Your task to perform on an android device: Clear the shopping cart on walmart. Search for razer naga on walmart, select the first entry, add it to the cart, then select checkout. Image 0: 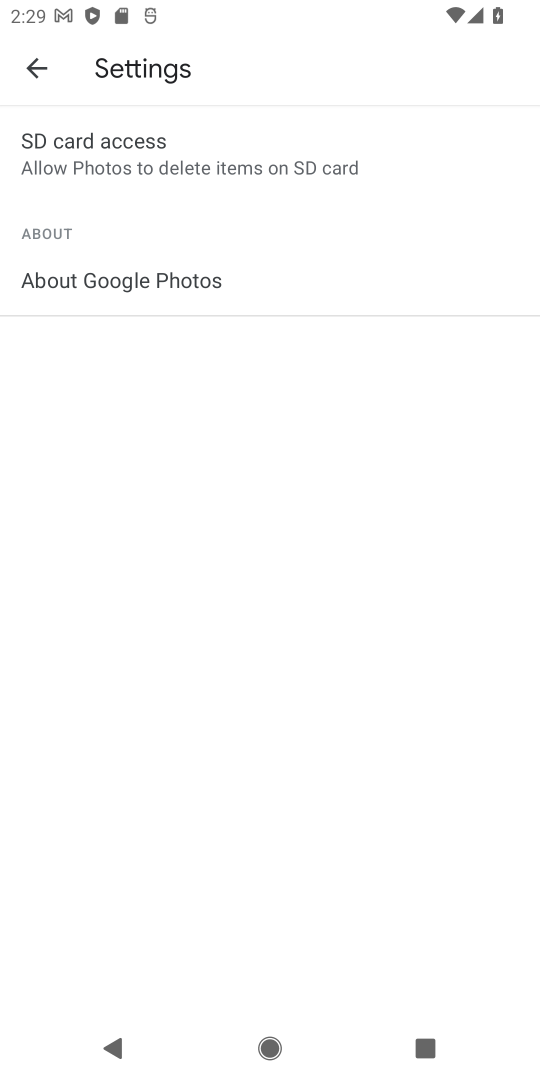
Step 0: press home button
Your task to perform on an android device: Clear the shopping cart on walmart. Search for razer naga on walmart, select the first entry, add it to the cart, then select checkout. Image 1: 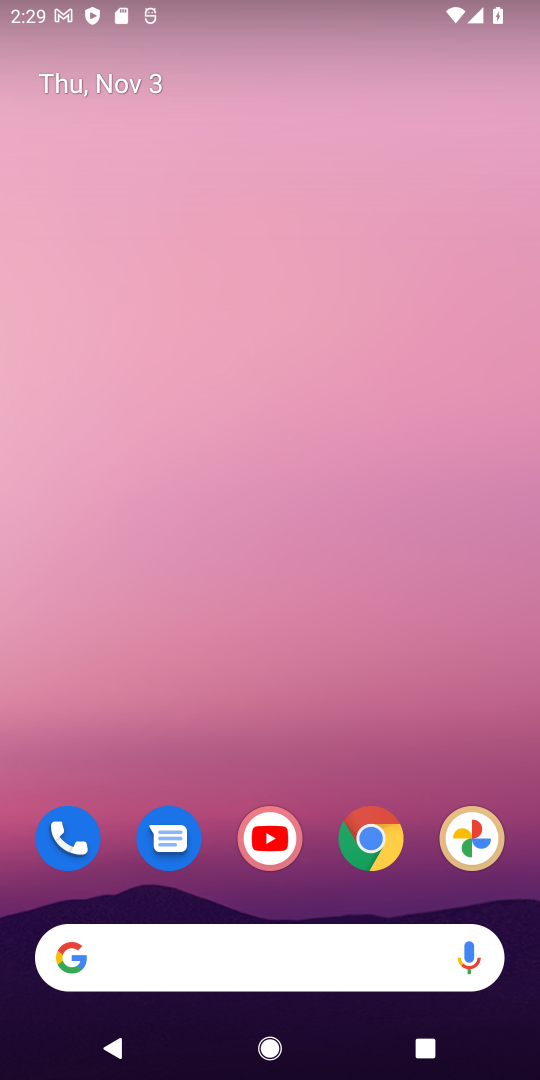
Step 1: drag from (316, 895) to (370, 214)
Your task to perform on an android device: Clear the shopping cart on walmart. Search for razer naga on walmart, select the first entry, add it to the cart, then select checkout. Image 2: 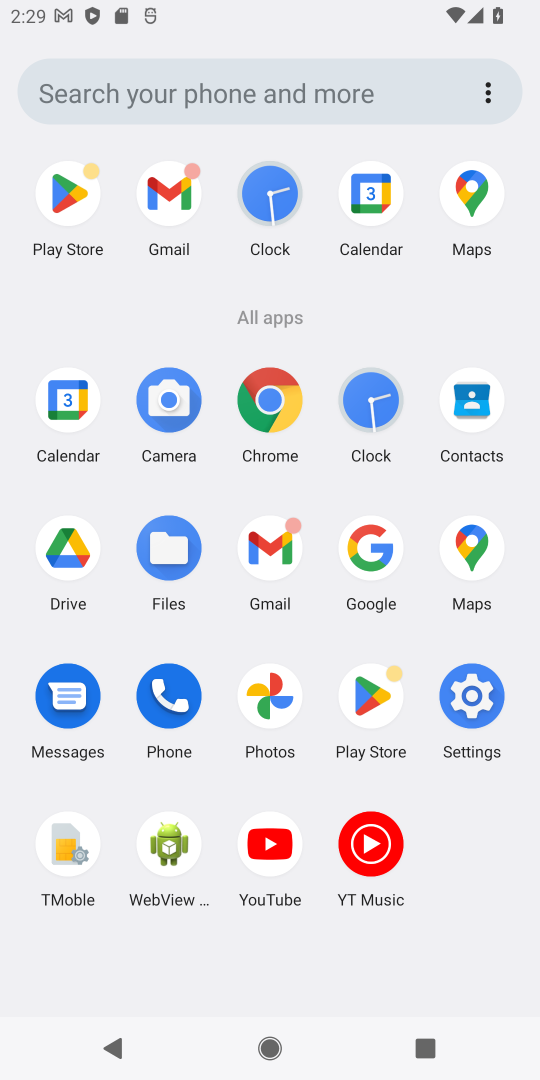
Step 2: click (265, 401)
Your task to perform on an android device: Clear the shopping cart on walmart. Search for razer naga on walmart, select the first entry, add it to the cart, then select checkout. Image 3: 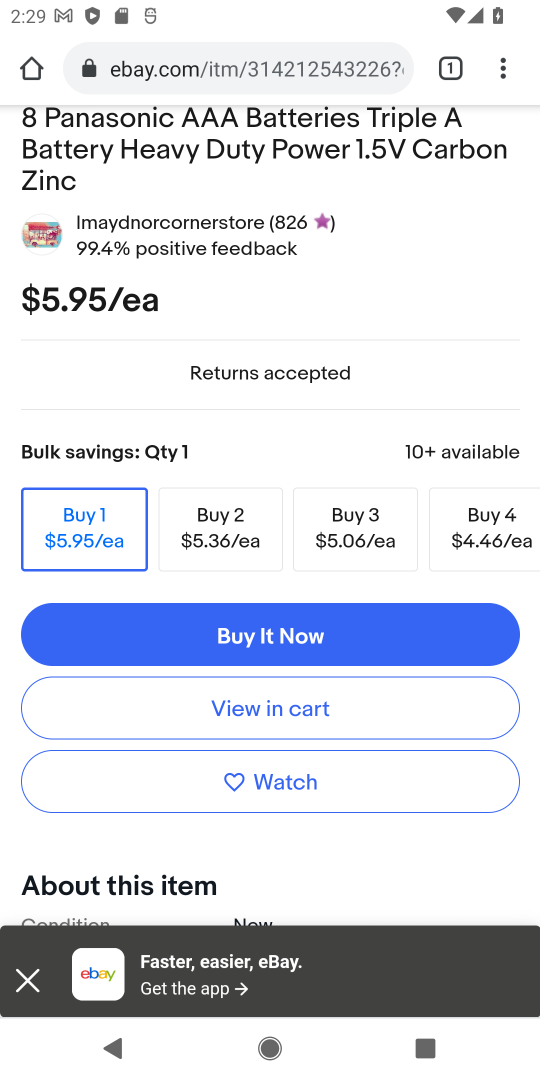
Step 3: click (316, 65)
Your task to perform on an android device: Clear the shopping cart on walmart. Search for razer naga on walmart, select the first entry, add it to the cart, then select checkout. Image 4: 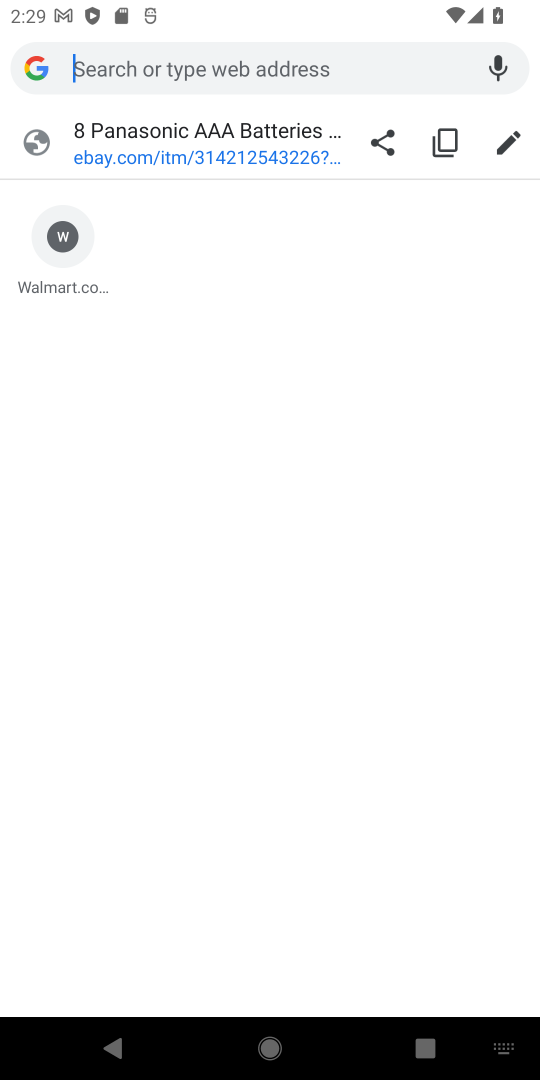
Step 4: type "walmart.com"
Your task to perform on an android device: Clear the shopping cart on walmart. Search for razer naga on walmart, select the first entry, add it to the cart, then select checkout. Image 5: 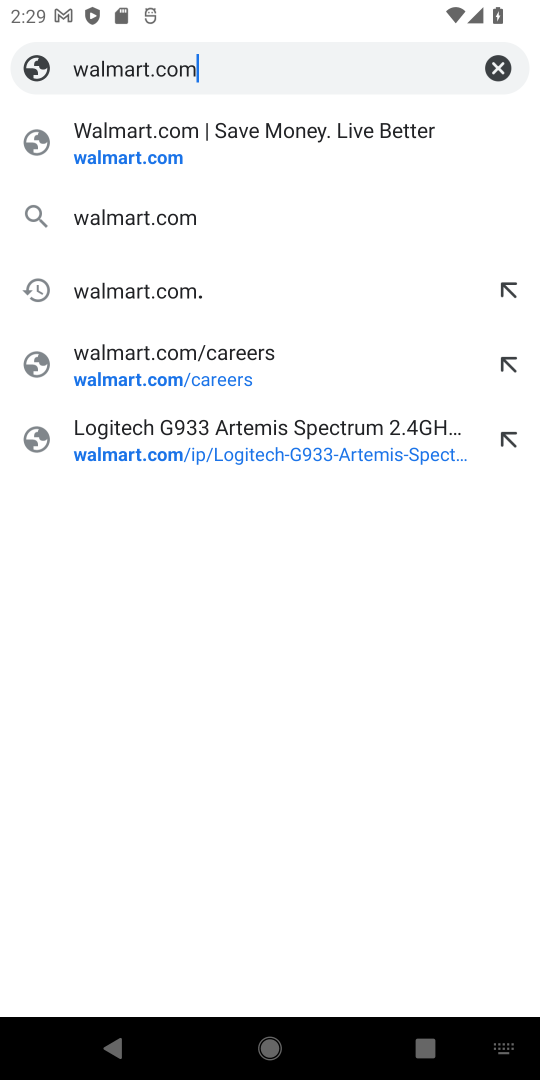
Step 5: press enter
Your task to perform on an android device: Clear the shopping cart on walmart. Search for razer naga on walmart, select the first entry, add it to the cart, then select checkout. Image 6: 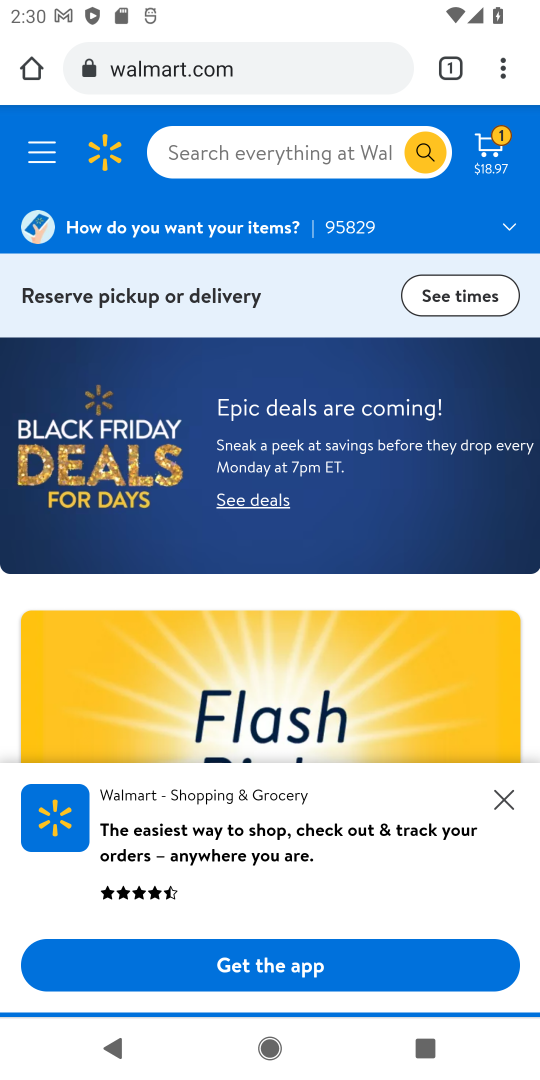
Step 6: click (271, 171)
Your task to perform on an android device: Clear the shopping cart on walmart. Search for razer naga on walmart, select the first entry, add it to the cart, then select checkout. Image 7: 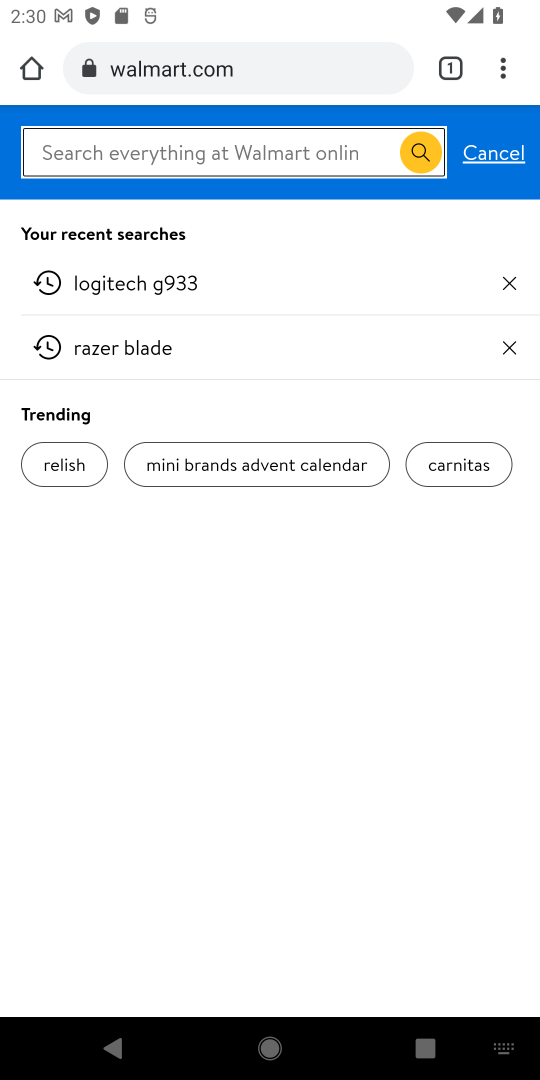
Step 7: click (503, 154)
Your task to perform on an android device: Clear the shopping cart on walmart. Search for razer naga on walmart, select the first entry, add it to the cart, then select checkout. Image 8: 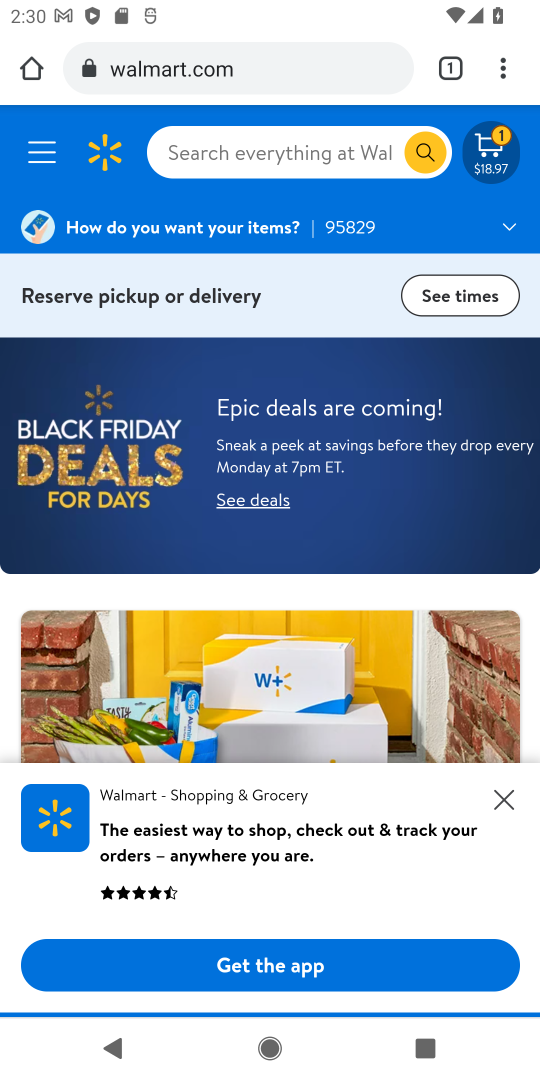
Step 8: click (503, 154)
Your task to perform on an android device: Clear the shopping cart on walmart. Search for razer naga on walmart, select the first entry, add it to the cart, then select checkout. Image 9: 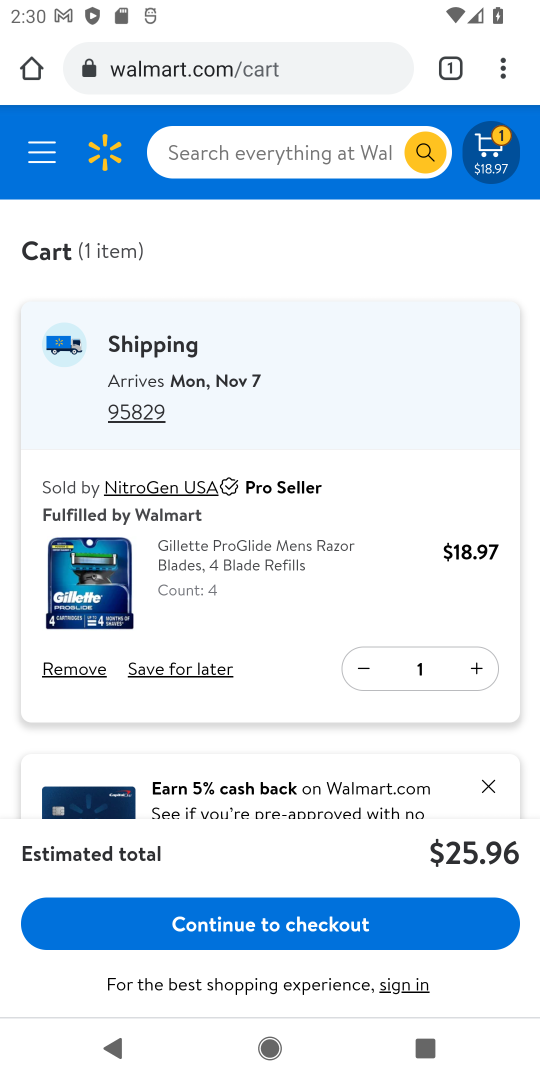
Step 9: click (74, 666)
Your task to perform on an android device: Clear the shopping cart on walmart. Search for razer naga on walmart, select the first entry, add it to the cart, then select checkout. Image 10: 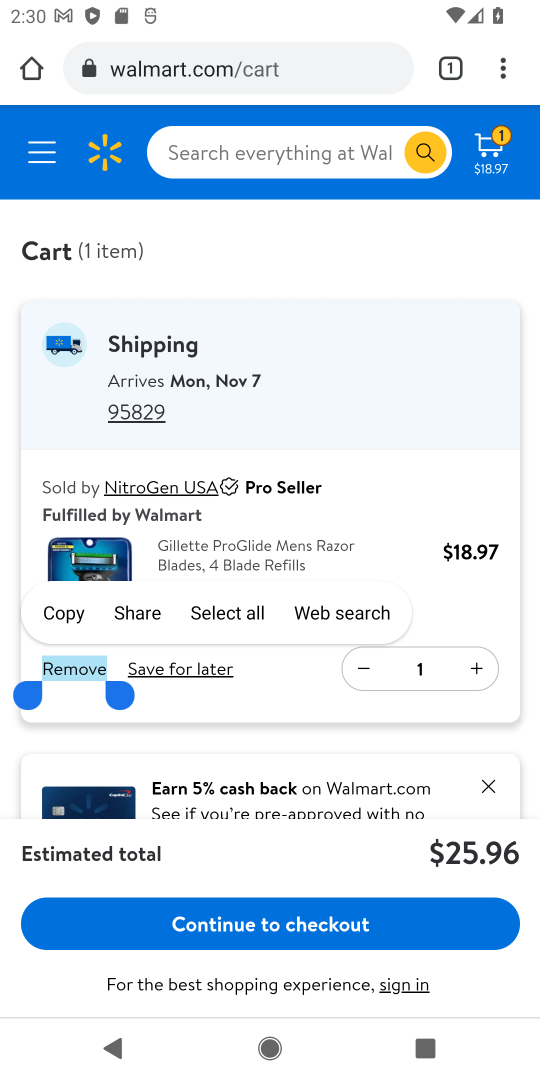
Step 10: click (74, 666)
Your task to perform on an android device: Clear the shopping cart on walmart. Search for razer naga on walmart, select the first entry, add it to the cart, then select checkout. Image 11: 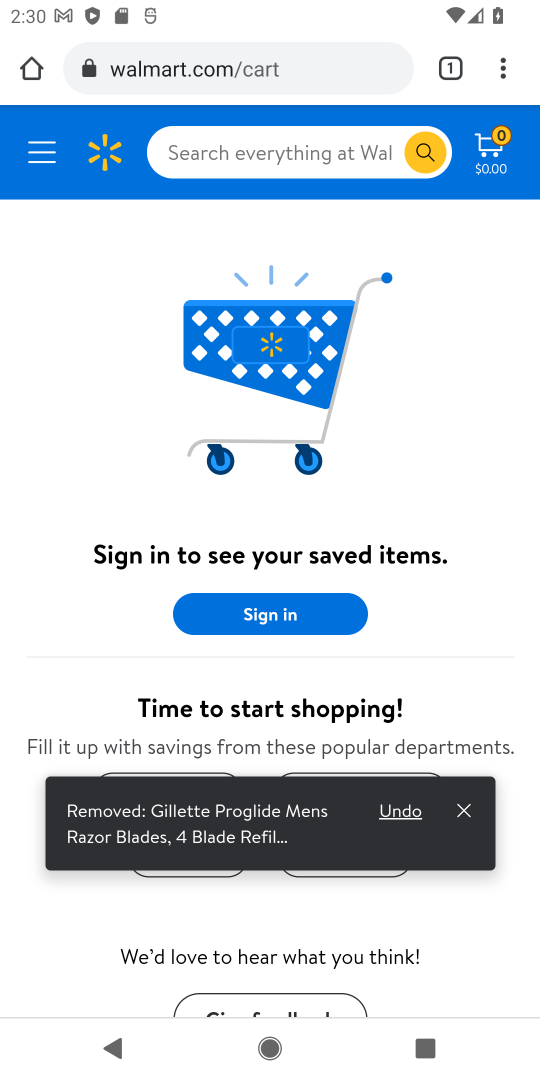
Step 11: click (310, 141)
Your task to perform on an android device: Clear the shopping cart on walmart. Search for razer naga on walmart, select the first entry, add it to the cart, then select checkout. Image 12: 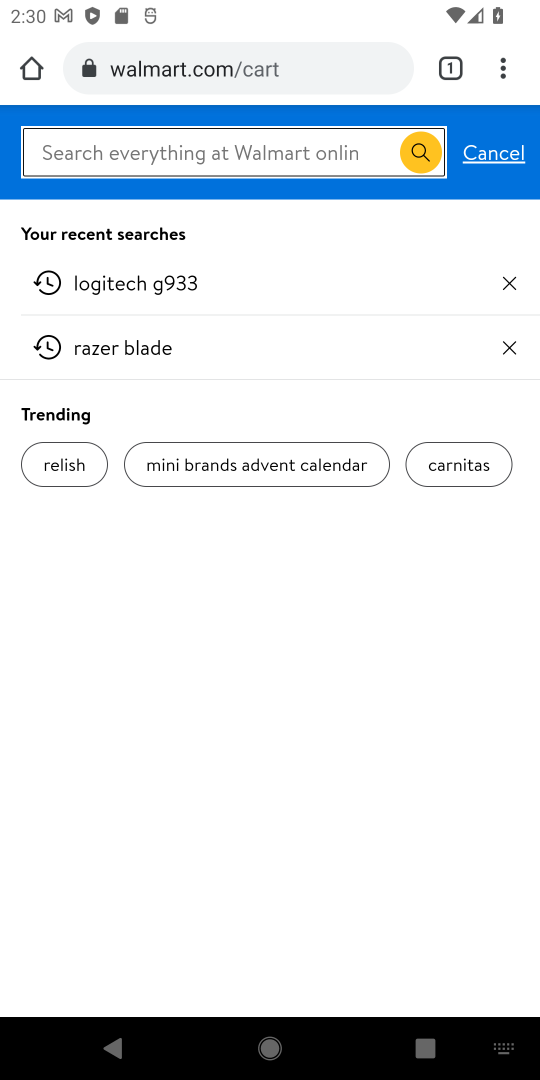
Step 12: type "razer naga"
Your task to perform on an android device: Clear the shopping cart on walmart. Search for razer naga on walmart, select the first entry, add it to the cart, then select checkout. Image 13: 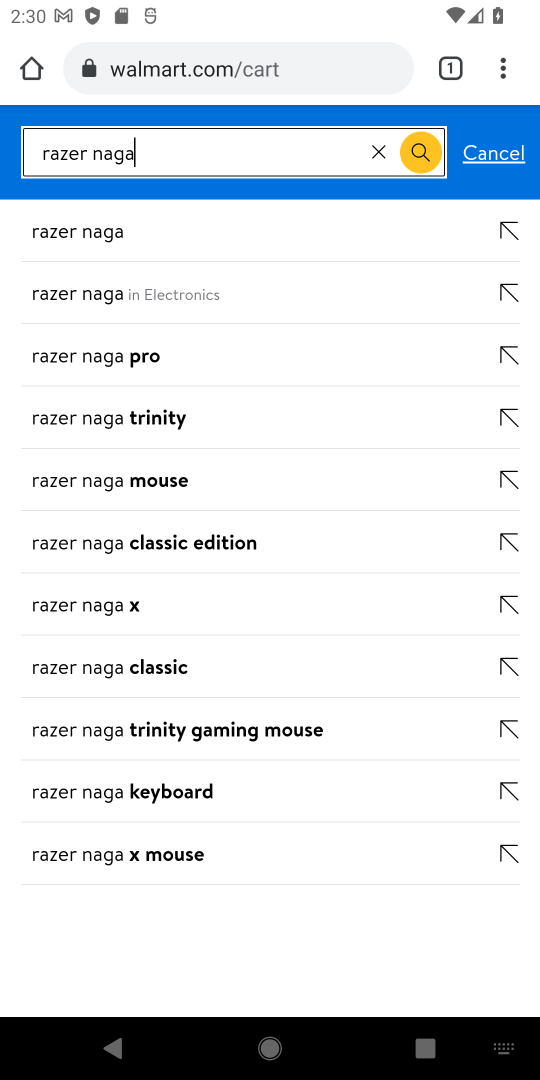
Step 13: press enter
Your task to perform on an android device: Clear the shopping cart on walmart. Search for razer naga on walmart, select the first entry, add it to the cart, then select checkout. Image 14: 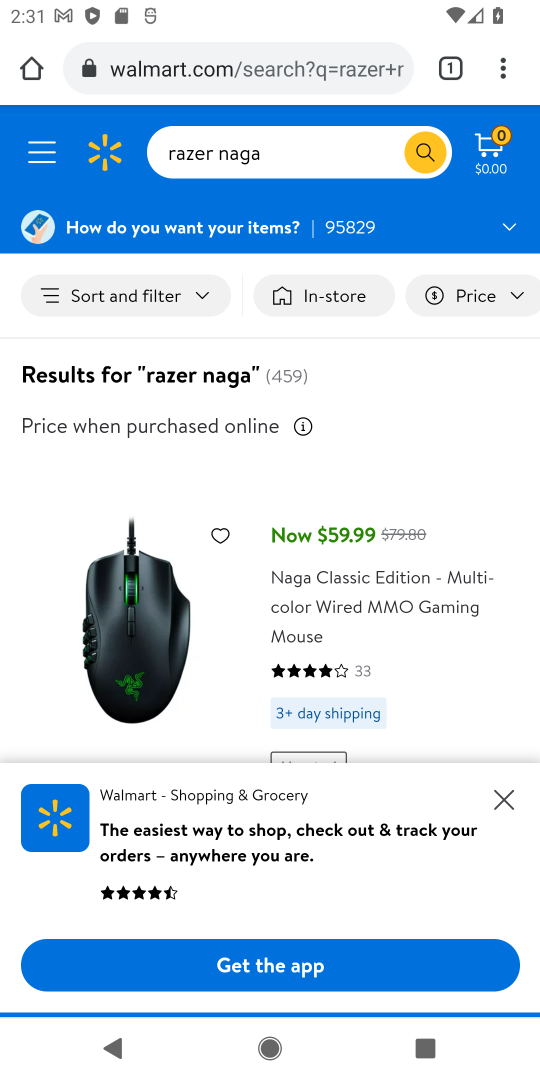
Step 14: drag from (291, 660) to (333, 402)
Your task to perform on an android device: Clear the shopping cart on walmart. Search for razer naga on walmart, select the first entry, add it to the cart, then select checkout. Image 15: 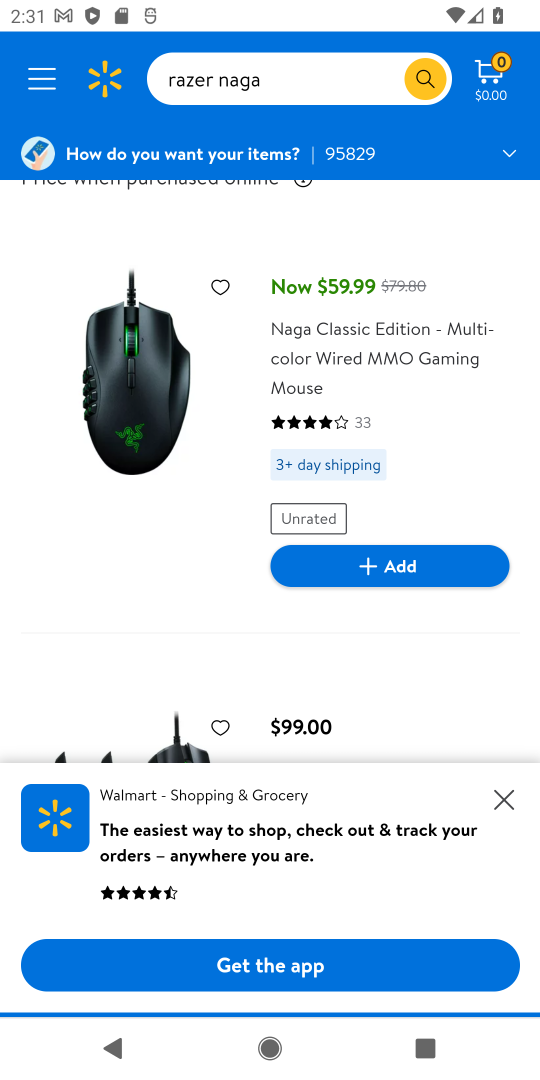
Step 15: drag from (405, 689) to (395, 397)
Your task to perform on an android device: Clear the shopping cart on walmart. Search for razer naga on walmart, select the first entry, add it to the cart, then select checkout. Image 16: 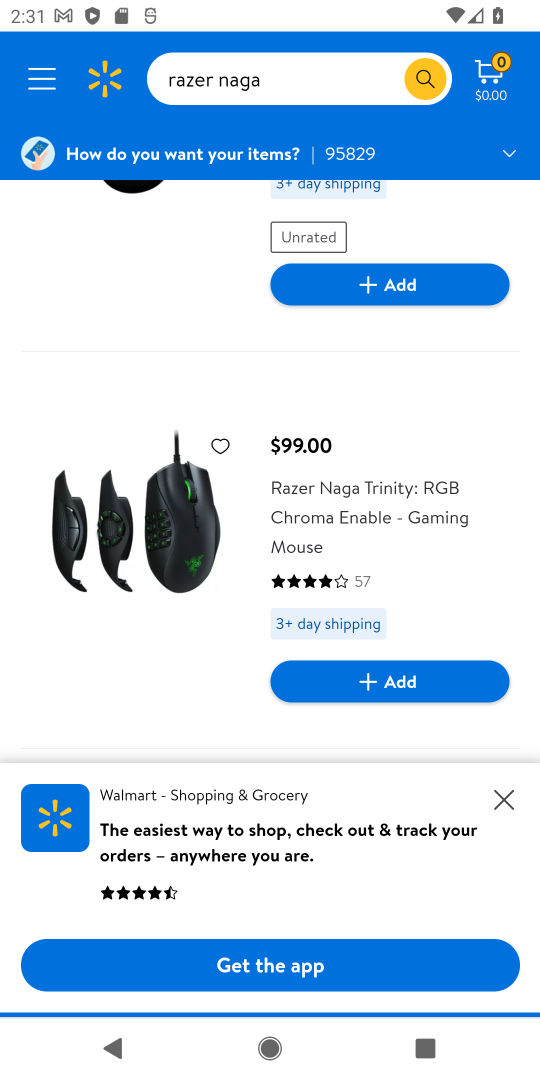
Step 16: drag from (398, 378) to (279, 492)
Your task to perform on an android device: Clear the shopping cart on walmart. Search for razer naga on walmart, select the first entry, add it to the cart, then select checkout. Image 17: 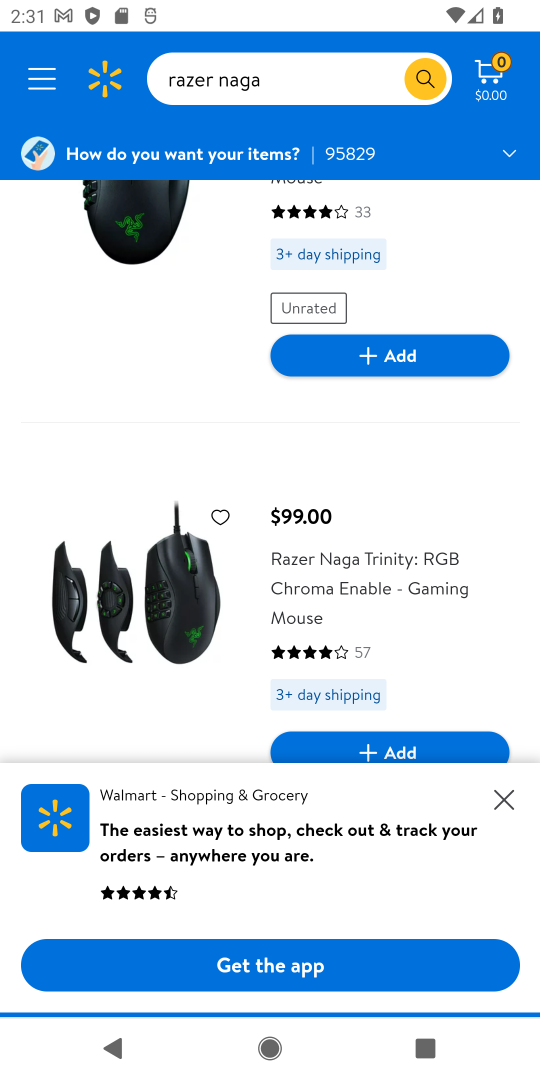
Step 17: drag from (150, 403) to (283, 373)
Your task to perform on an android device: Clear the shopping cart on walmart. Search for razer naga on walmart, select the first entry, add it to the cart, then select checkout. Image 18: 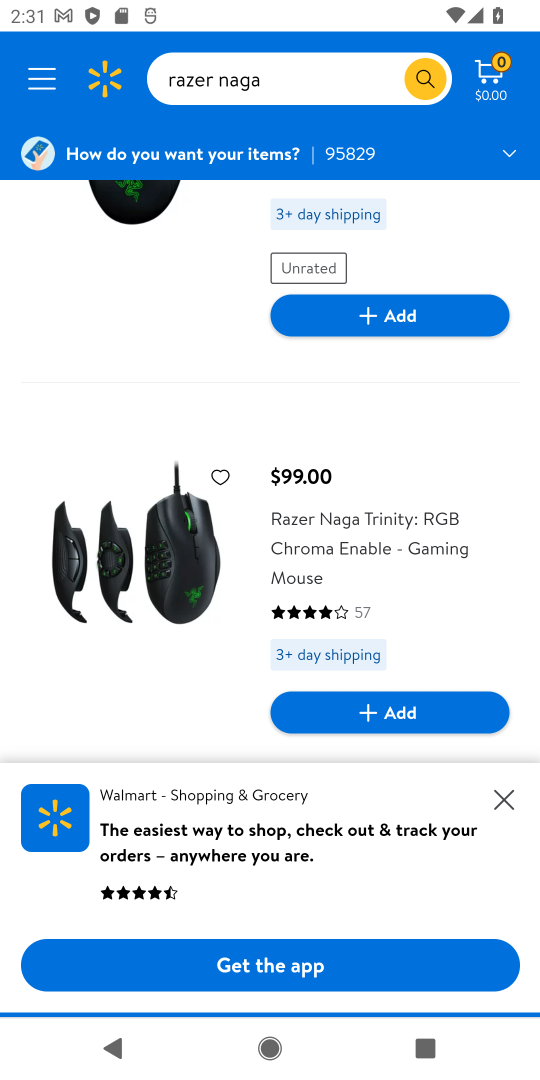
Step 18: click (329, 535)
Your task to perform on an android device: Clear the shopping cart on walmart. Search for razer naga on walmart, select the first entry, add it to the cart, then select checkout. Image 19: 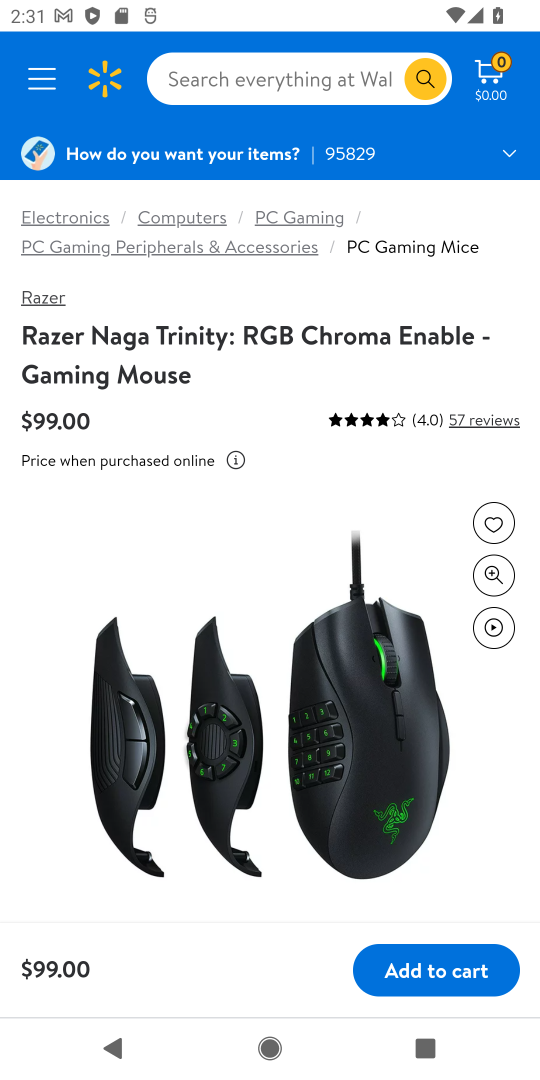
Step 19: click (423, 982)
Your task to perform on an android device: Clear the shopping cart on walmart. Search for razer naga on walmart, select the first entry, add it to the cart, then select checkout. Image 20: 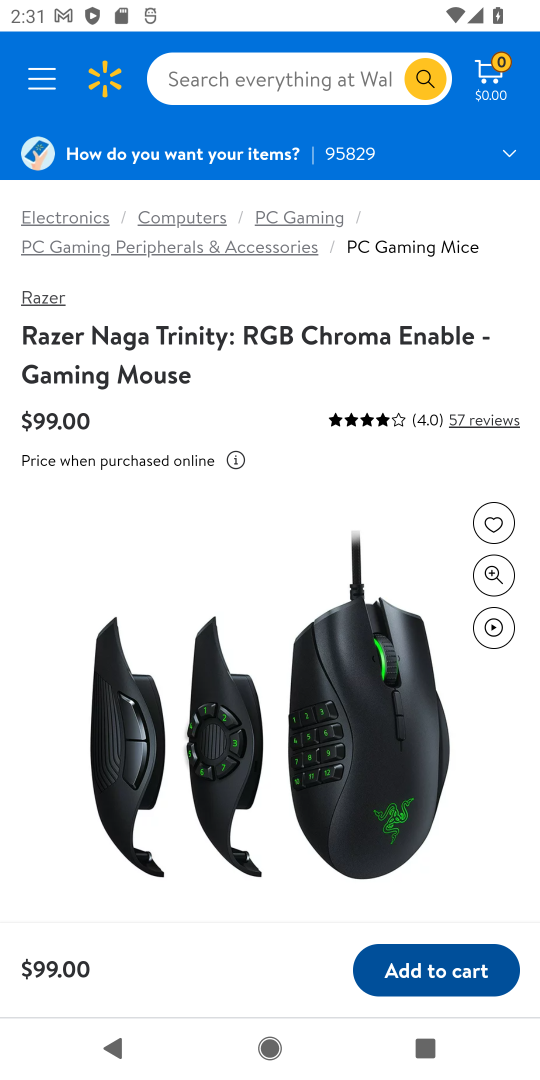
Step 20: click (474, 971)
Your task to perform on an android device: Clear the shopping cart on walmart. Search for razer naga on walmart, select the first entry, add it to the cart, then select checkout. Image 21: 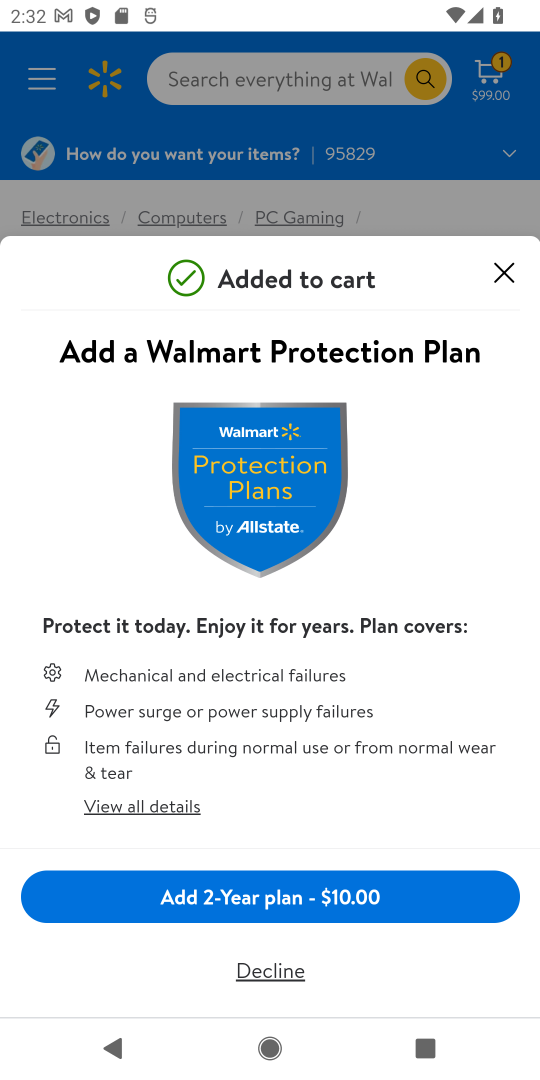
Step 21: click (499, 282)
Your task to perform on an android device: Clear the shopping cart on walmart. Search for razer naga on walmart, select the first entry, add it to the cart, then select checkout. Image 22: 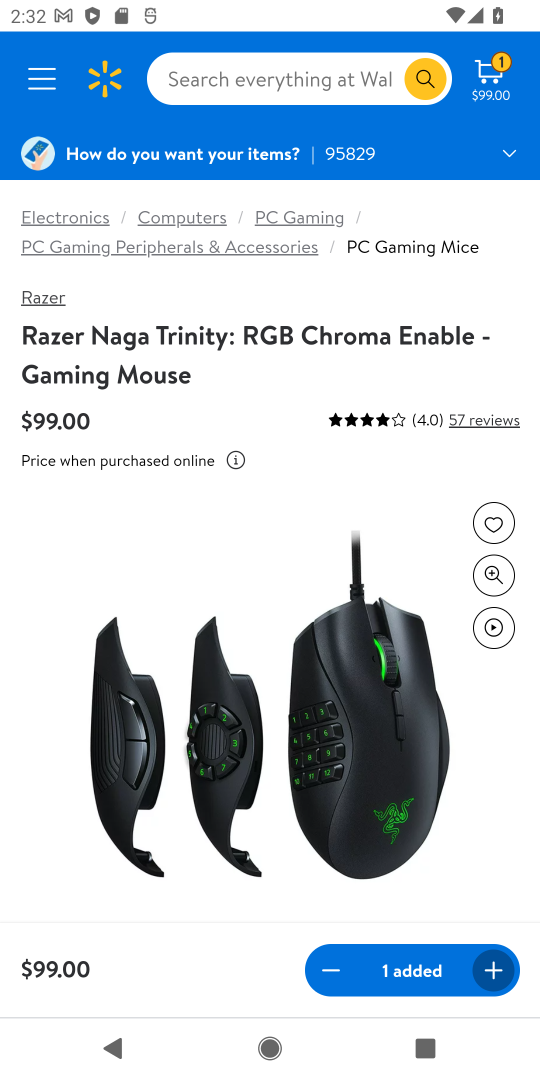
Step 22: click (491, 65)
Your task to perform on an android device: Clear the shopping cart on walmart. Search for razer naga on walmart, select the first entry, add it to the cart, then select checkout. Image 23: 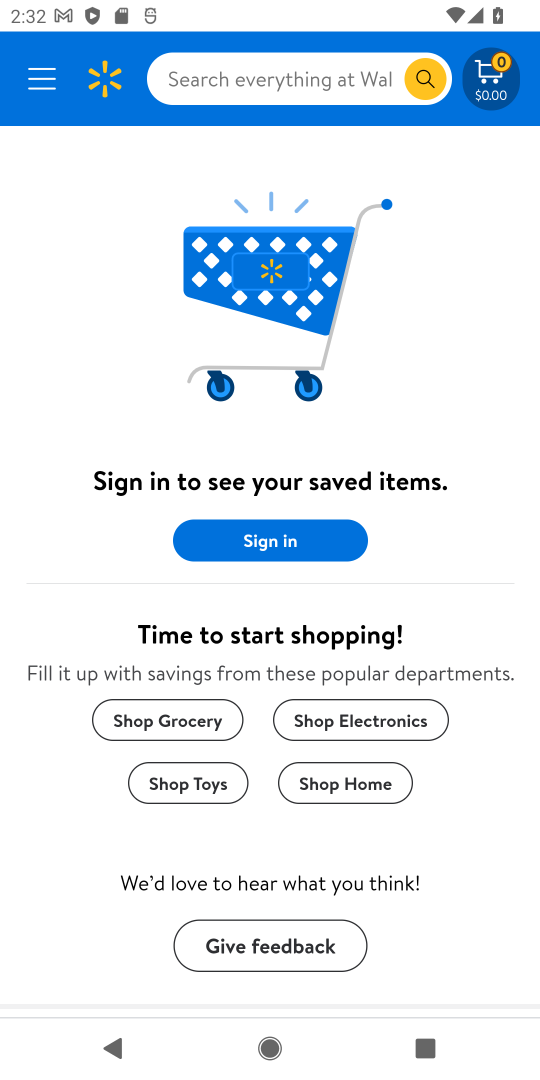
Step 23: press back button
Your task to perform on an android device: Clear the shopping cart on walmart. Search for razer naga on walmart, select the first entry, add it to the cart, then select checkout. Image 24: 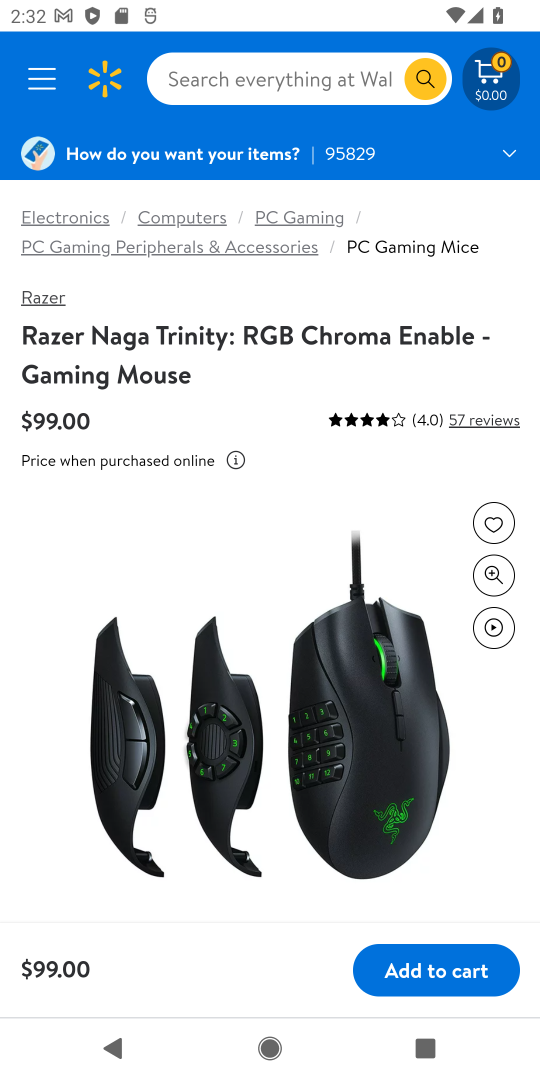
Step 24: click (467, 976)
Your task to perform on an android device: Clear the shopping cart on walmart. Search for razer naga on walmart, select the first entry, add it to the cart, then select checkout. Image 25: 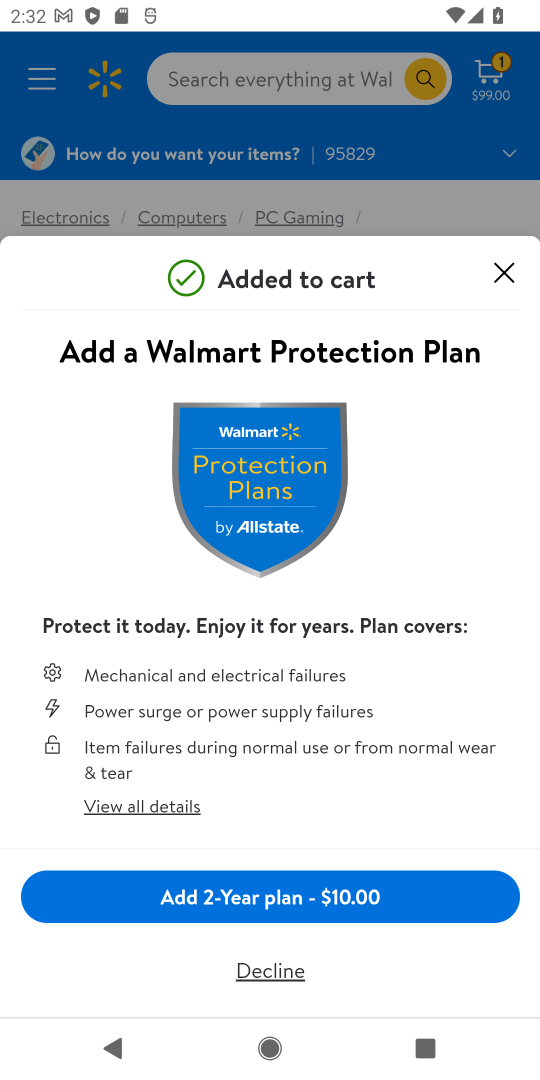
Step 25: click (497, 266)
Your task to perform on an android device: Clear the shopping cart on walmart. Search for razer naga on walmart, select the first entry, add it to the cart, then select checkout. Image 26: 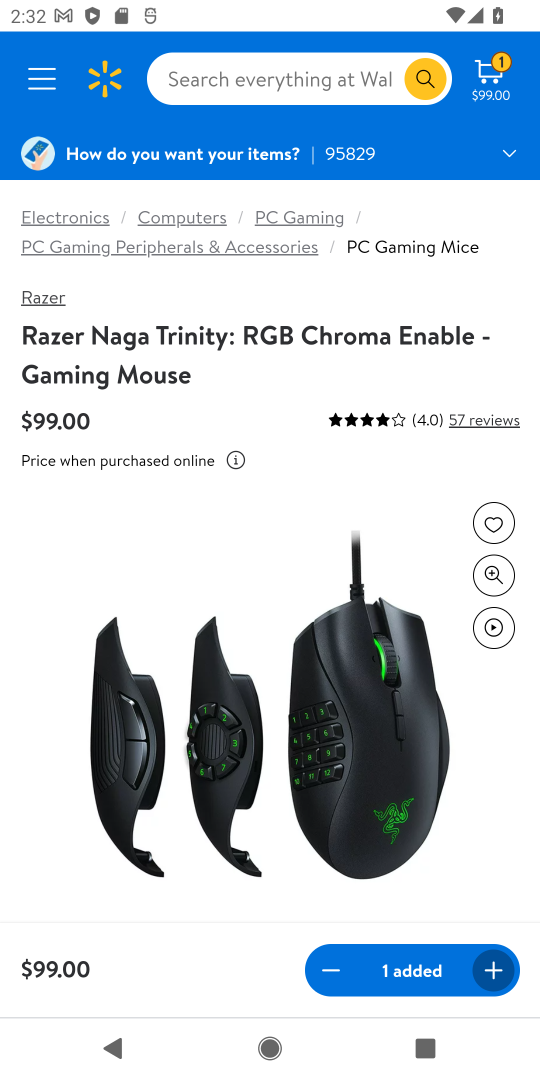
Step 26: click (491, 92)
Your task to perform on an android device: Clear the shopping cart on walmart. Search for razer naga on walmart, select the first entry, add it to the cart, then select checkout. Image 27: 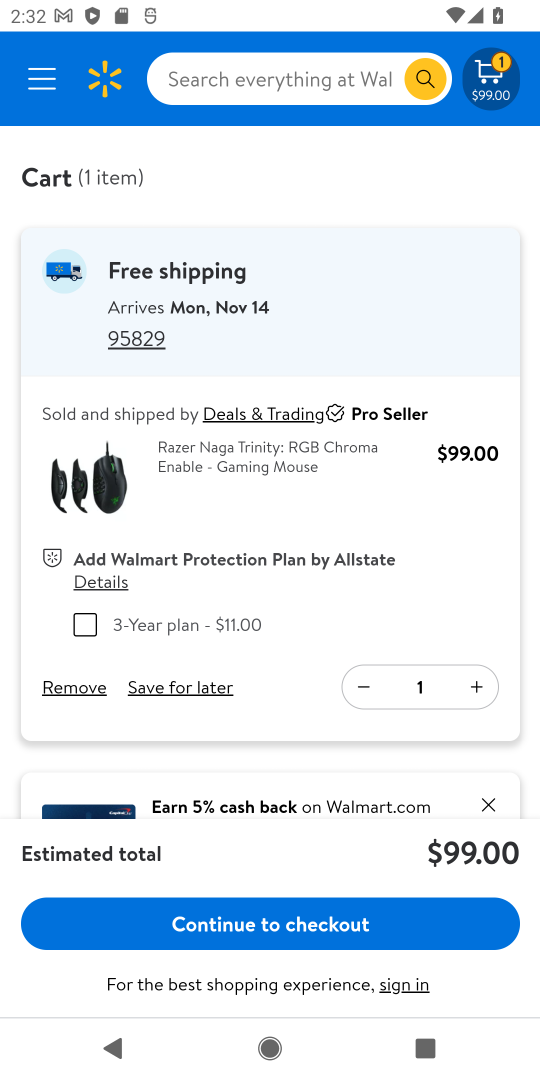
Step 27: click (294, 912)
Your task to perform on an android device: Clear the shopping cart on walmart. Search for razer naga on walmart, select the first entry, add it to the cart, then select checkout. Image 28: 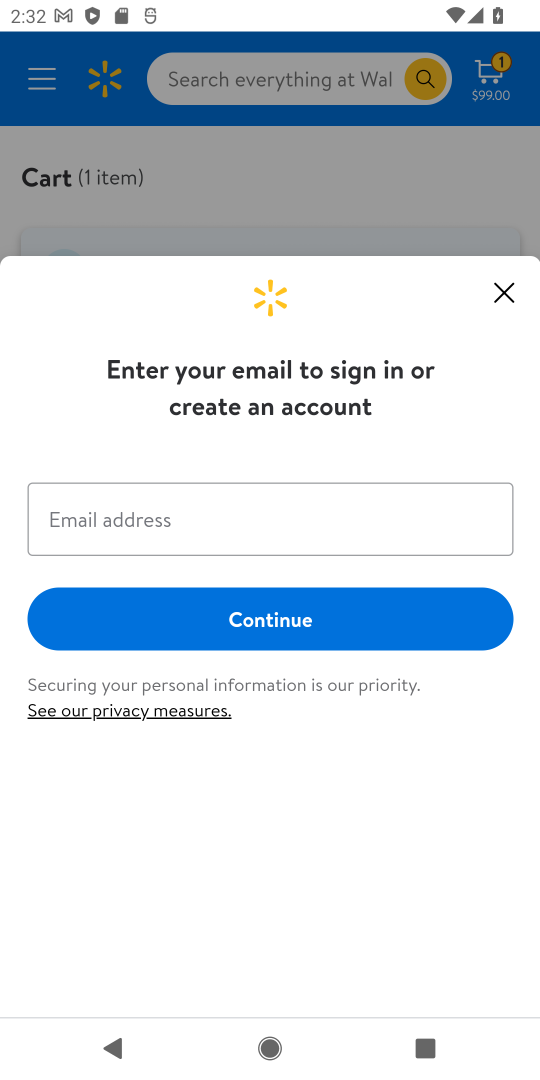
Step 28: task complete